Your task to perform on an android device: Do I have any events today? Image 0: 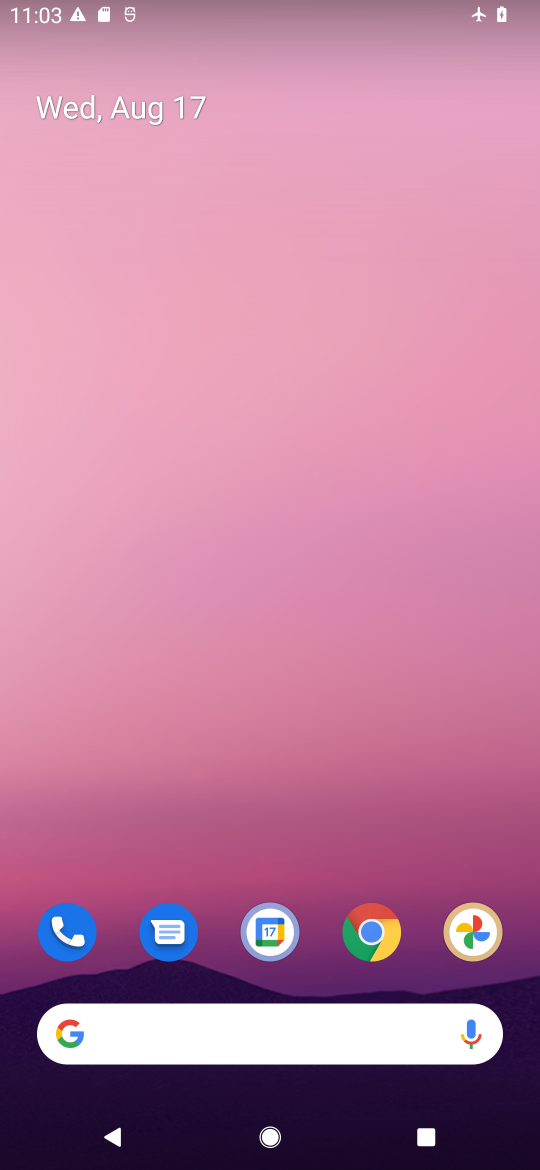
Step 0: click (277, 914)
Your task to perform on an android device: Do I have any events today? Image 1: 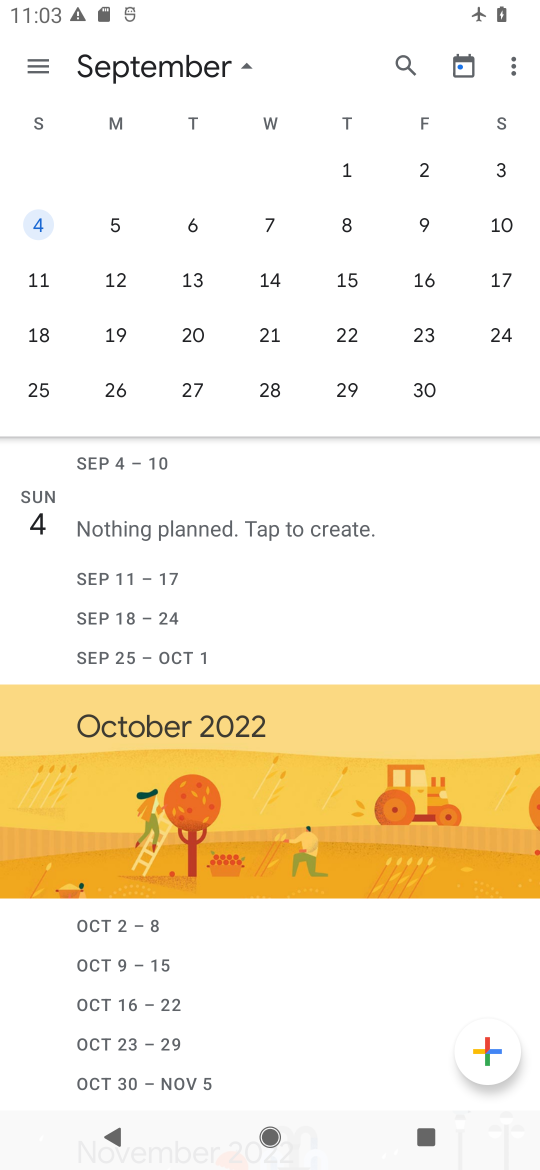
Step 1: drag from (87, 251) to (510, 210)
Your task to perform on an android device: Do I have any events today? Image 2: 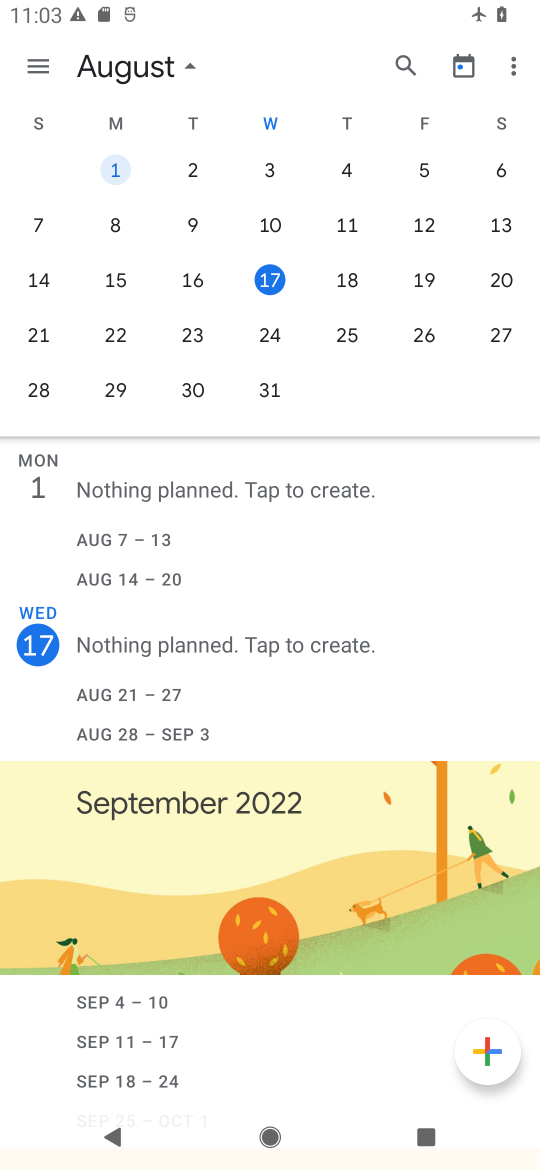
Step 2: click (282, 288)
Your task to perform on an android device: Do I have any events today? Image 3: 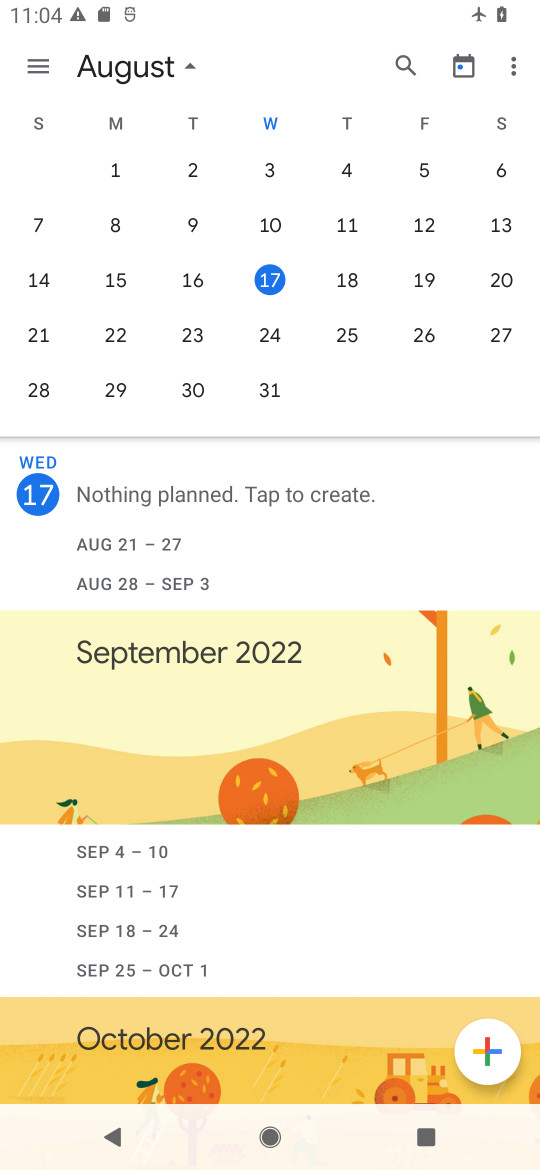
Step 3: task complete